Your task to perform on an android device: open wifi settings Image 0: 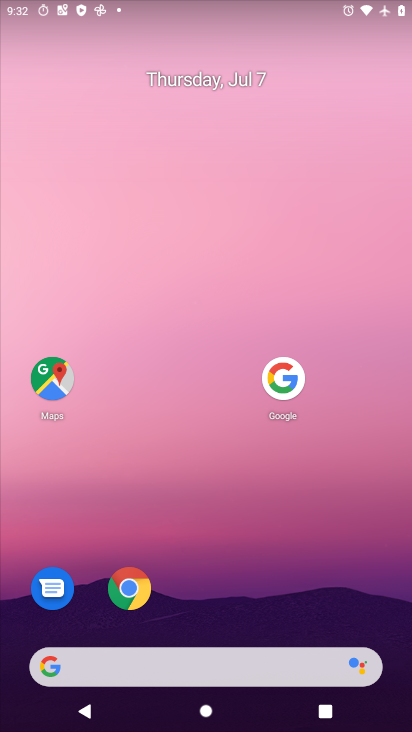
Step 0: drag from (202, 665) to (232, 31)
Your task to perform on an android device: open wifi settings Image 1: 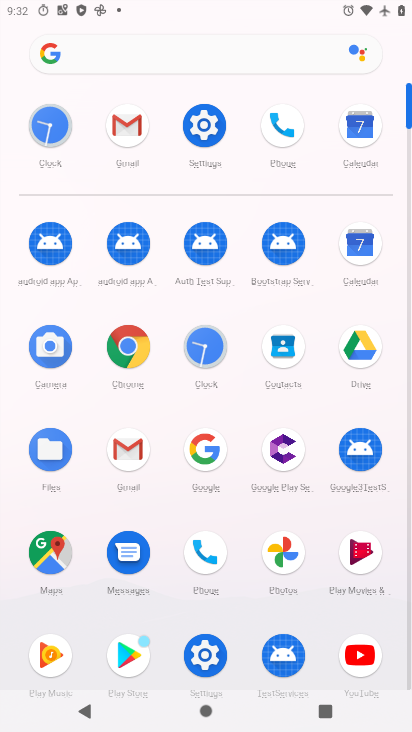
Step 1: click (206, 117)
Your task to perform on an android device: open wifi settings Image 2: 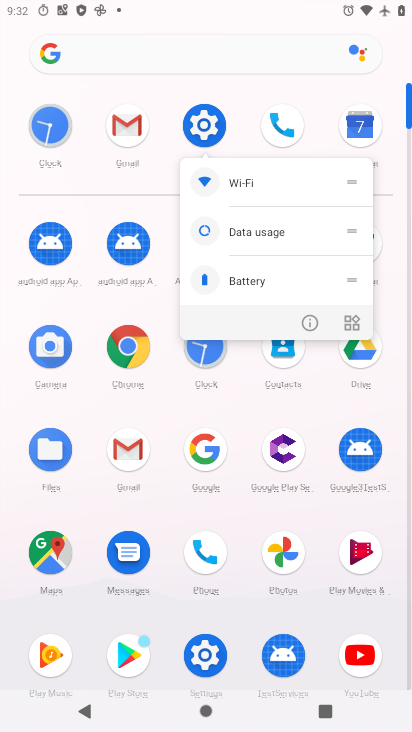
Step 2: click (207, 118)
Your task to perform on an android device: open wifi settings Image 3: 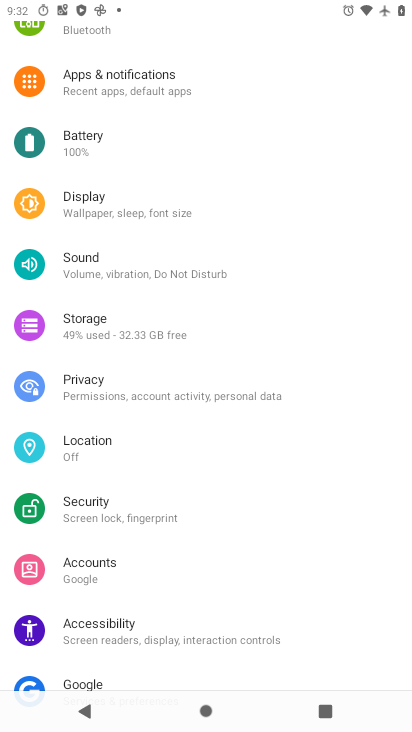
Step 3: drag from (222, 86) to (207, 545)
Your task to perform on an android device: open wifi settings Image 4: 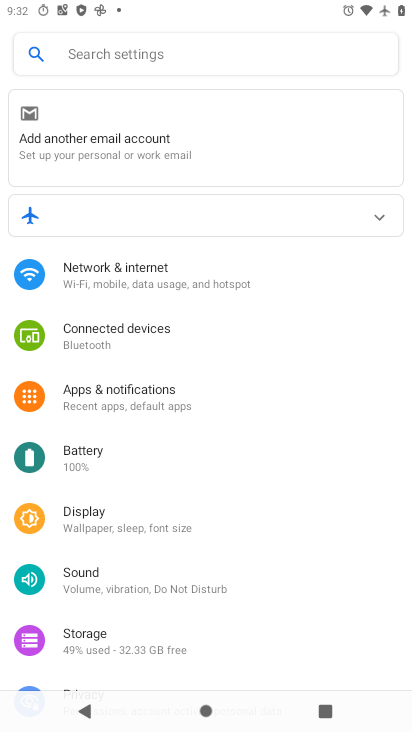
Step 4: click (146, 272)
Your task to perform on an android device: open wifi settings Image 5: 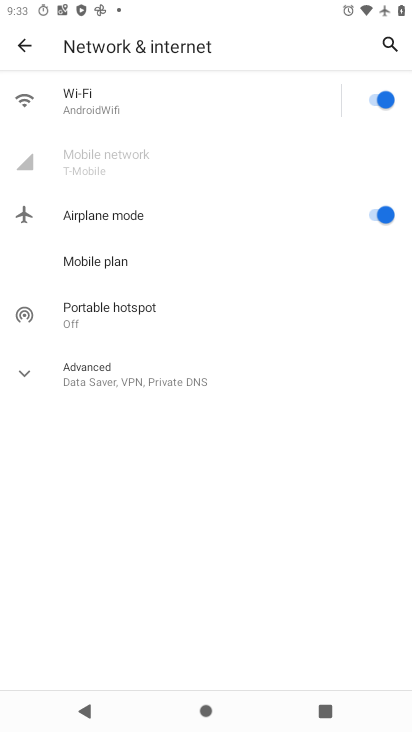
Step 5: click (149, 91)
Your task to perform on an android device: open wifi settings Image 6: 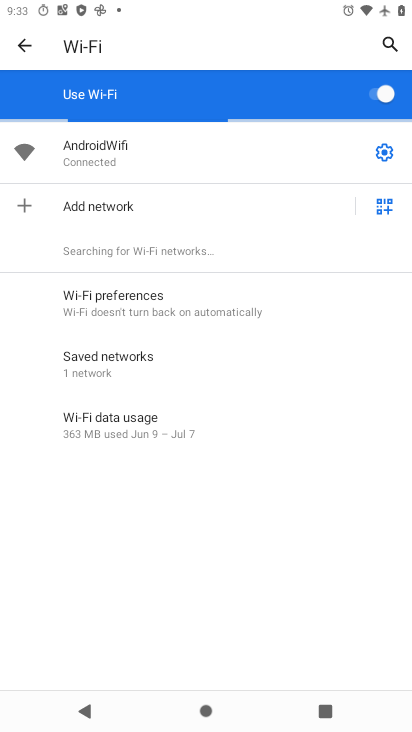
Step 6: task complete